Your task to perform on an android device: change notification settings in the gmail app Image 0: 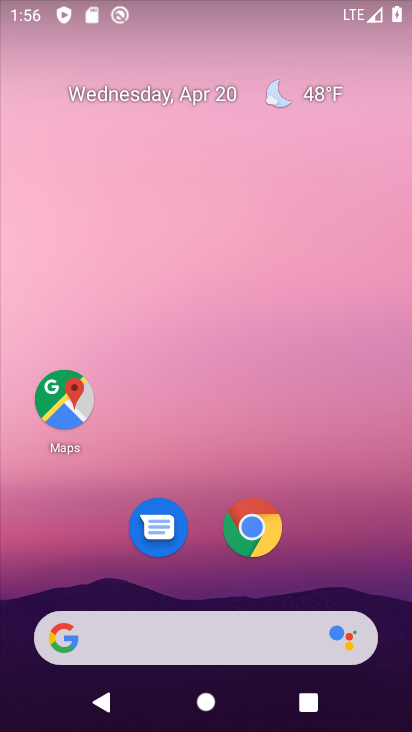
Step 0: drag from (202, 603) to (234, 67)
Your task to perform on an android device: change notification settings in the gmail app Image 1: 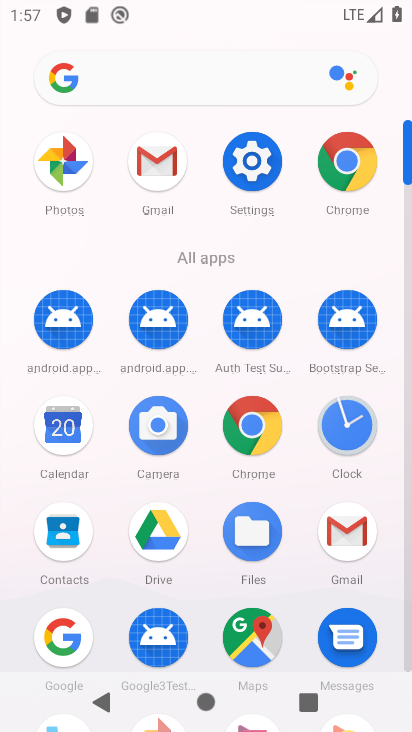
Step 1: click (334, 516)
Your task to perform on an android device: change notification settings in the gmail app Image 2: 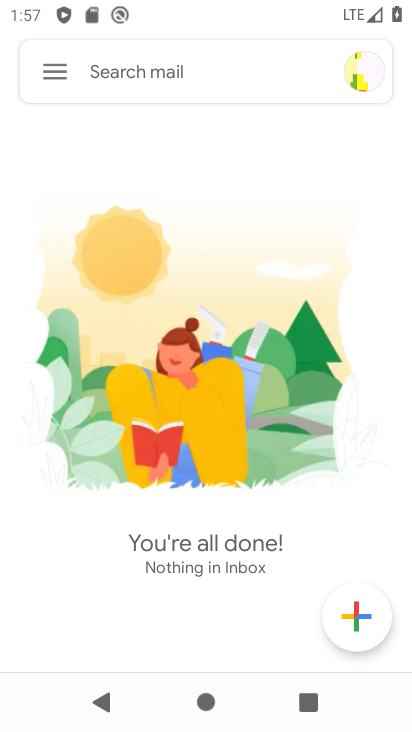
Step 2: click (65, 85)
Your task to perform on an android device: change notification settings in the gmail app Image 3: 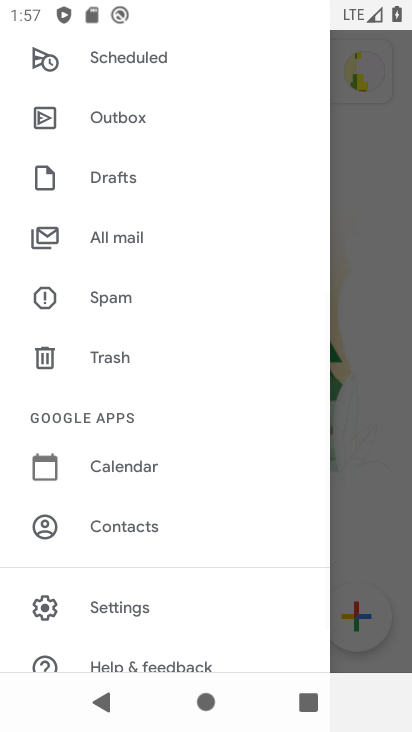
Step 3: click (130, 603)
Your task to perform on an android device: change notification settings in the gmail app Image 4: 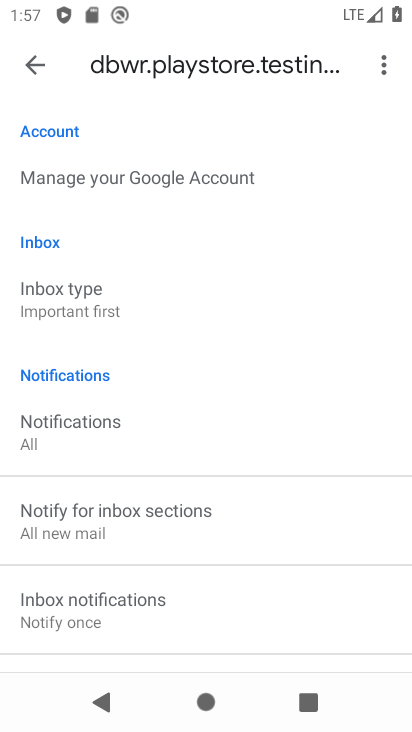
Step 4: click (122, 462)
Your task to perform on an android device: change notification settings in the gmail app Image 5: 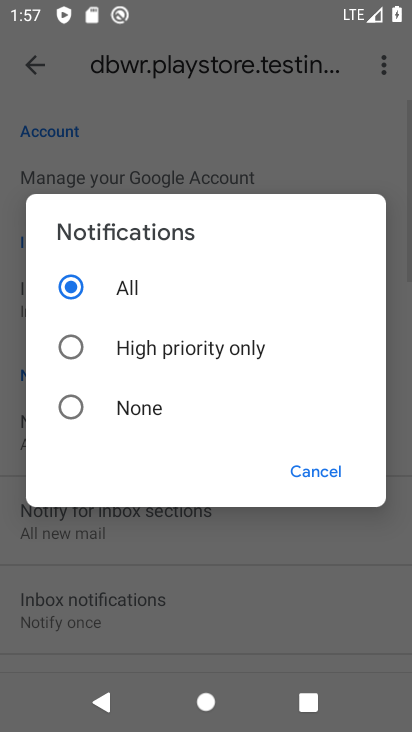
Step 5: click (113, 427)
Your task to perform on an android device: change notification settings in the gmail app Image 6: 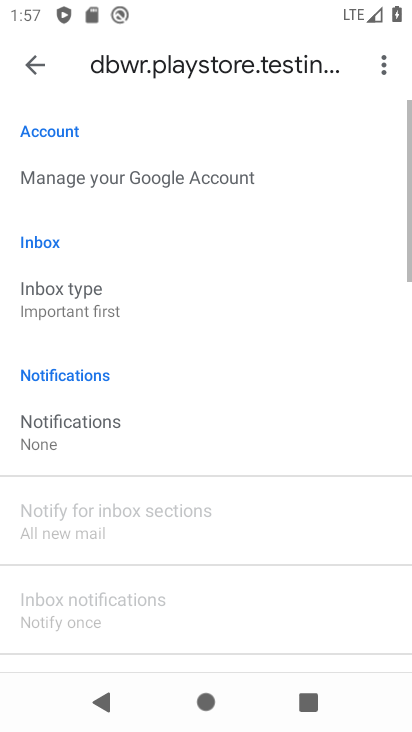
Step 6: task complete